Your task to perform on an android device: Go to notification settings Image 0: 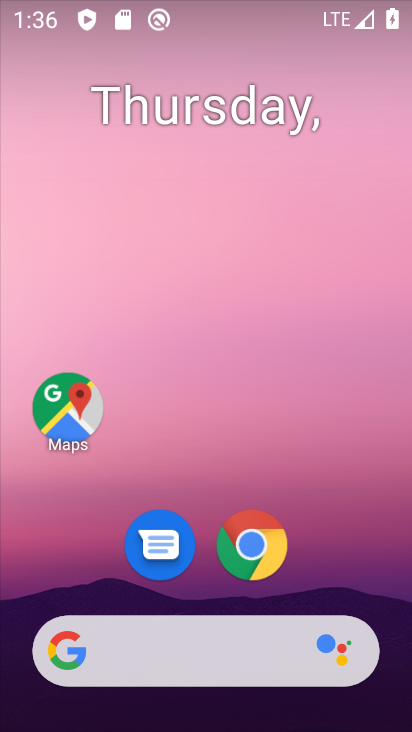
Step 0: drag from (226, 723) to (202, 154)
Your task to perform on an android device: Go to notification settings Image 1: 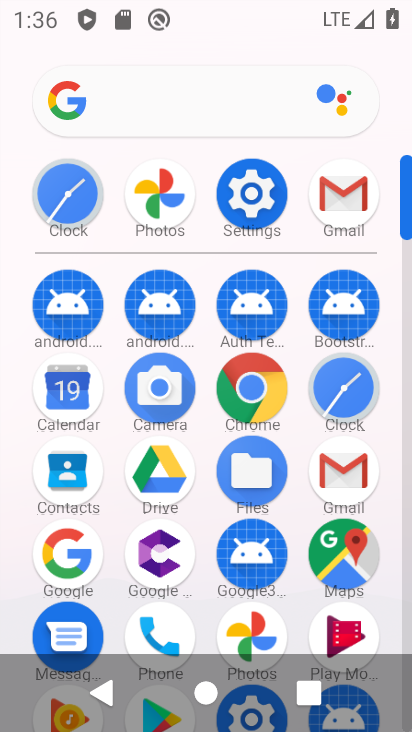
Step 1: click (246, 194)
Your task to perform on an android device: Go to notification settings Image 2: 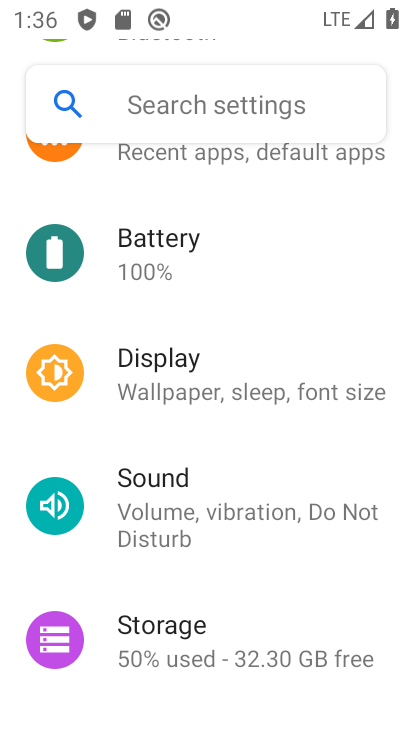
Step 2: drag from (264, 207) to (295, 622)
Your task to perform on an android device: Go to notification settings Image 3: 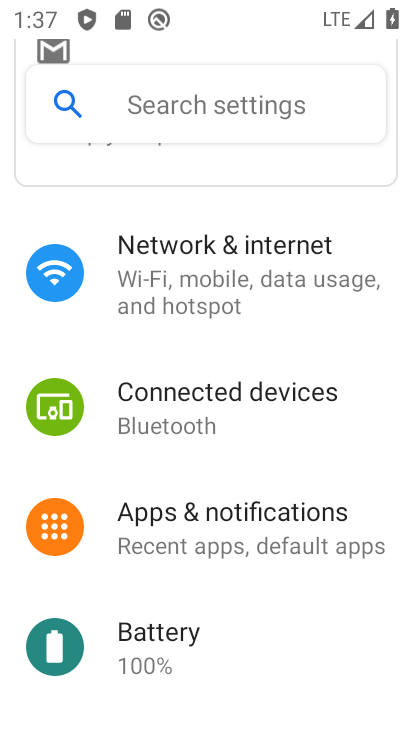
Step 3: click (286, 278)
Your task to perform on an android device: Go to notification settings Image 4: 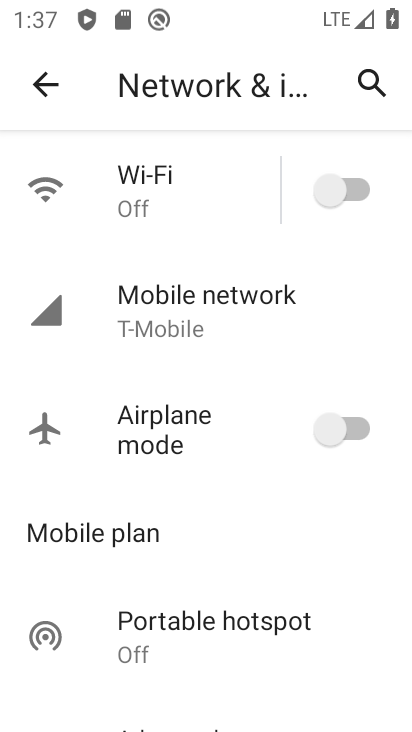
Step 4: press back button
Your task to perform on an android device: Go to notification settings Image 5: 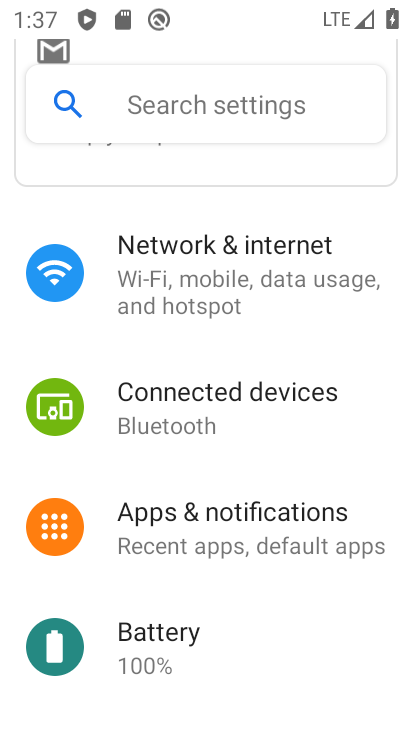
Step 5: click (207, 517)
Your task to perform on an android device: Go to notification settings Image 6: 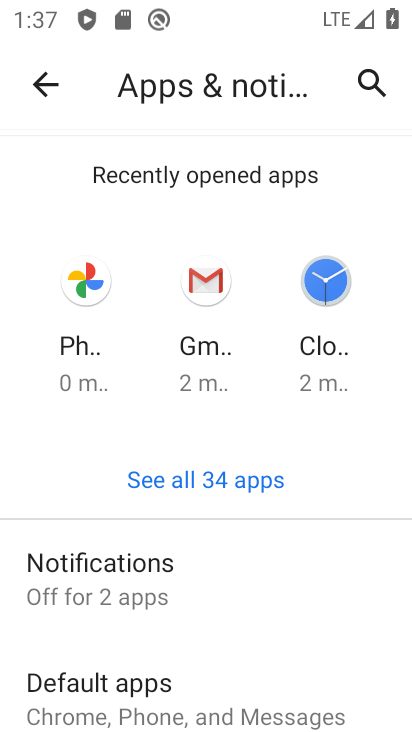
Step 6: task complete